Your task to perform on an android device: Go to settings Image 0: 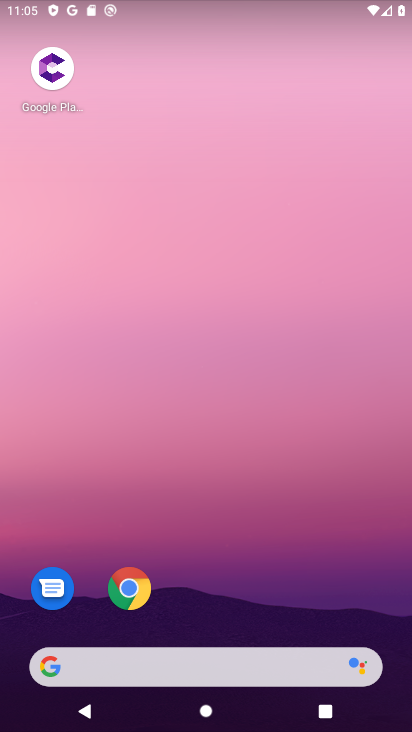
Step 0: drag from (375, 550) to (378, 153)
Your task to perform on an android device: Go to settings Image 1: 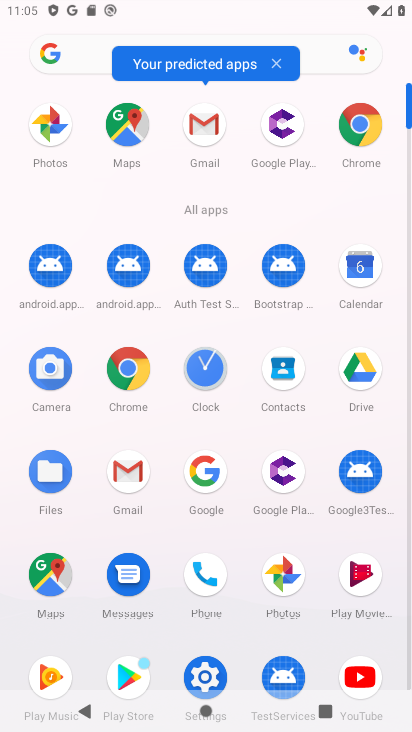
Step 1: click (405, 344)
Your task to perform on an android device: Go to settings Image 2: 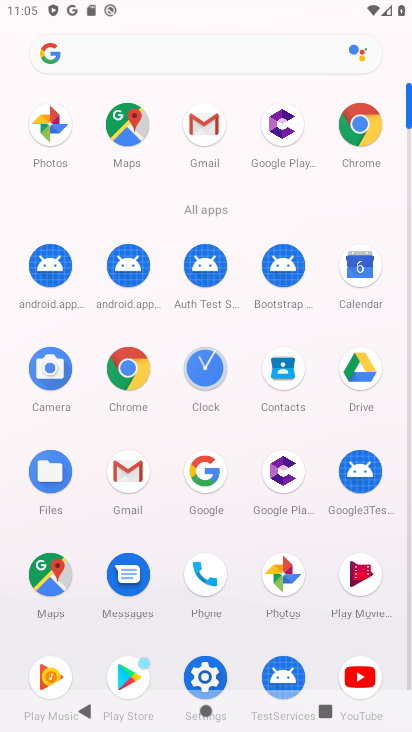
Step 2: click (405, 344)
Your task to perform on an android device: Go to settings Image 3: 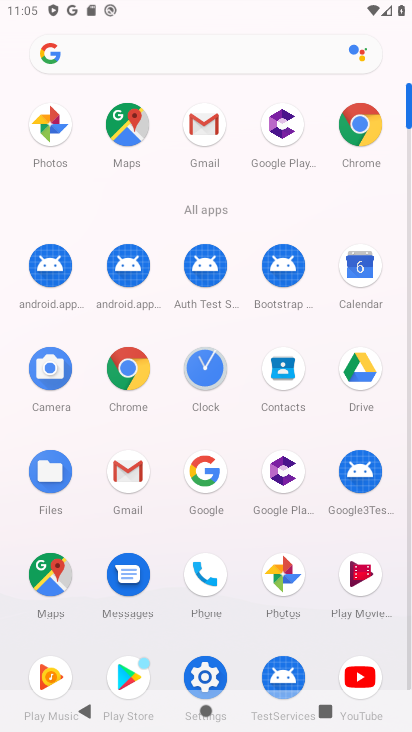
Step 3: click (407, 387)
Your task to perform on an android device: Go to settings Image 4: 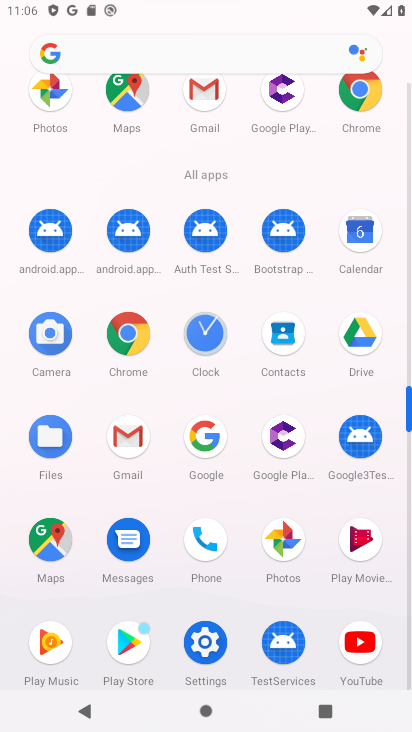
Step 4: click (204, 643)
Your task to perform on an android device: Go to settings Image 5: 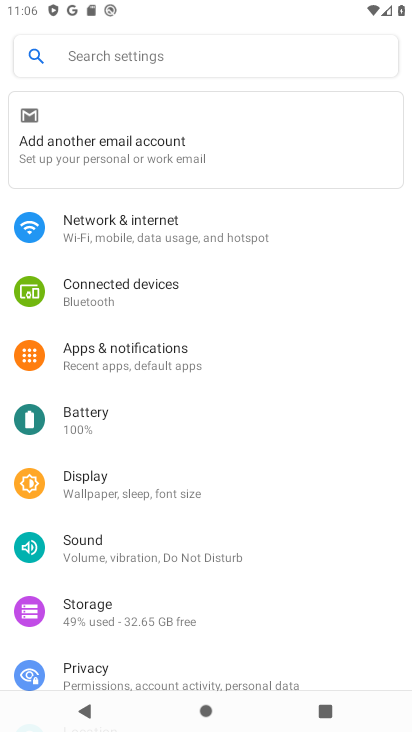
Step 5: task complete